Your task to perform on an android device: change text size in settings app Image 0: 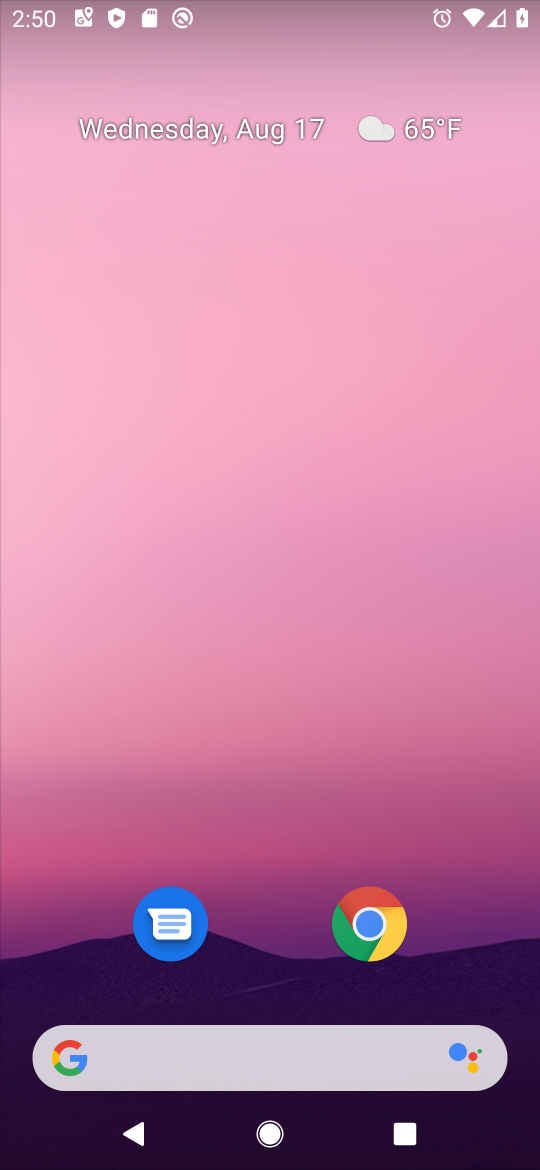
Step 0: drag from (222, 1063) to (180, 189)
Your task to perform on an android device: change text size in settings app Image 1: 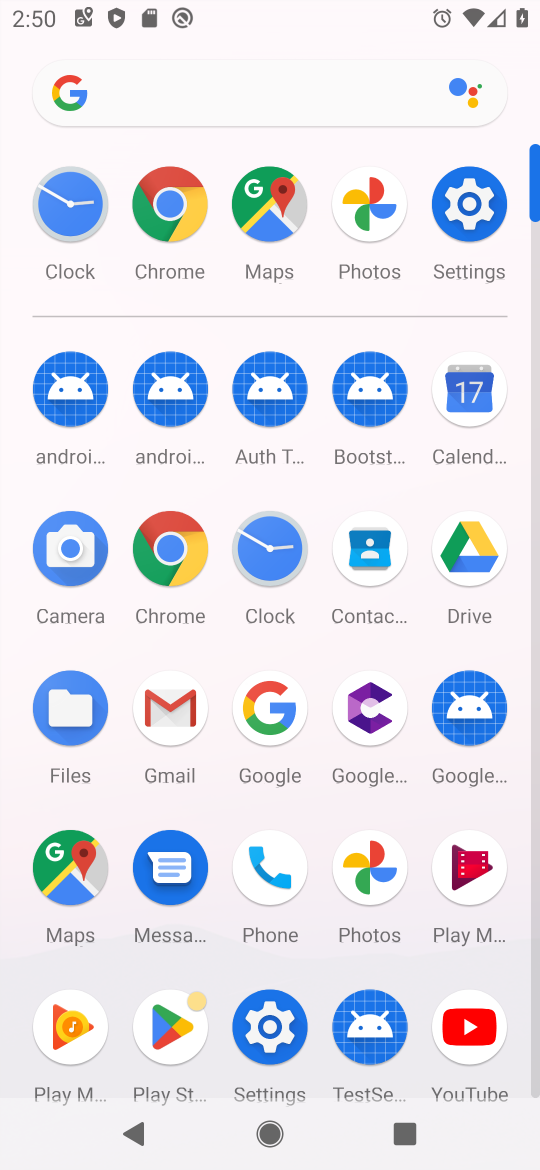
Step 1: click (470, 205)
Your task to perform on an android device: change text size in settings app Image 2: 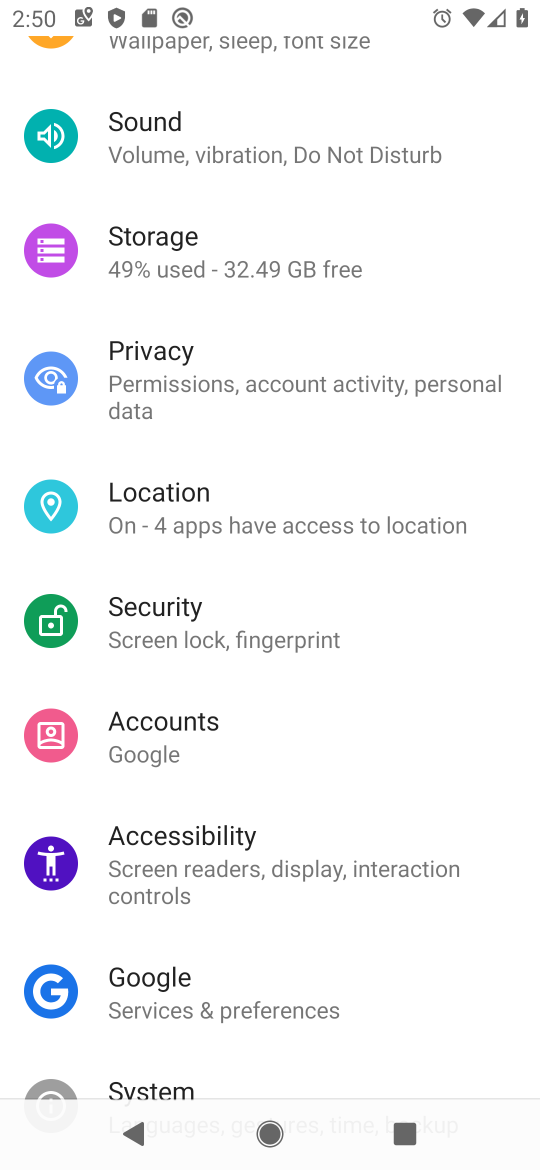
Step 2: click (206, 854)
Your task to perform on an android device: change text size in settings app Image 3: 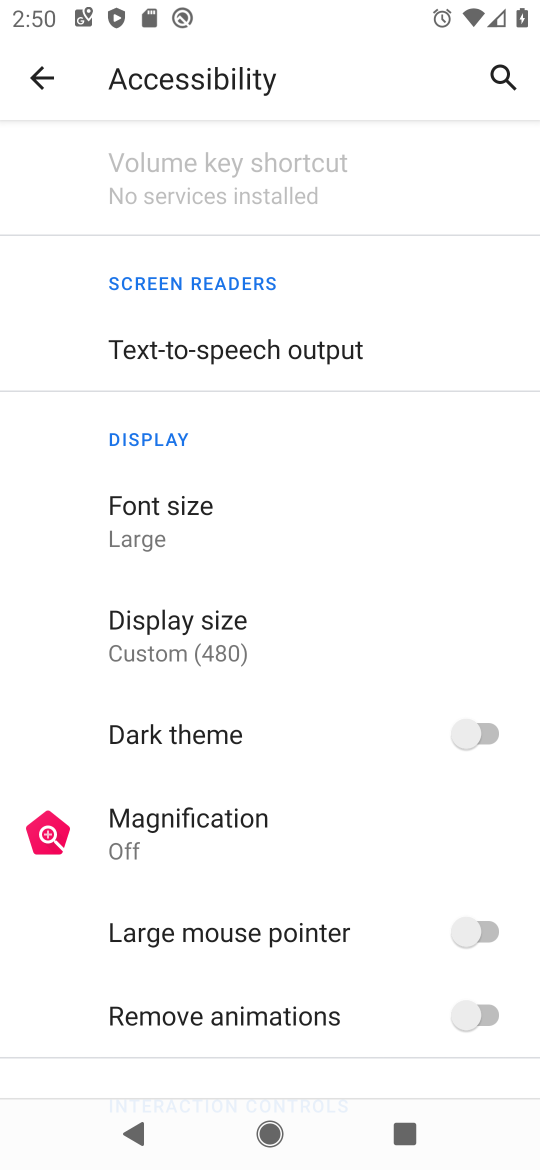
Step 3: click (191, 504)
Your task to perform on an android device: change text size in settings app Image 4: 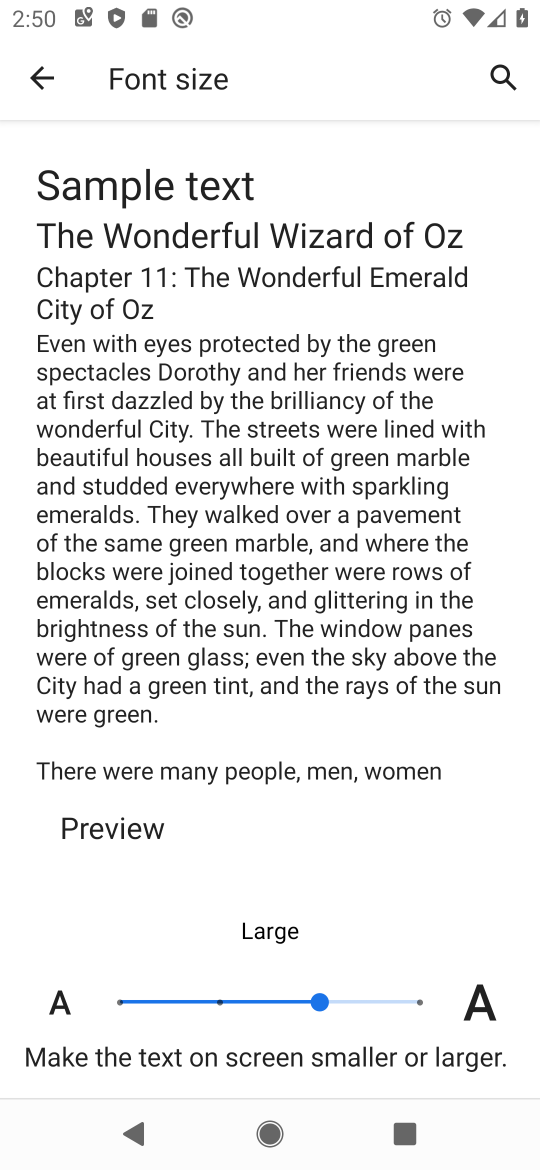
Step 4: click (223, 993)
Your task to perform on an android device: change text size in settings app Image 5: 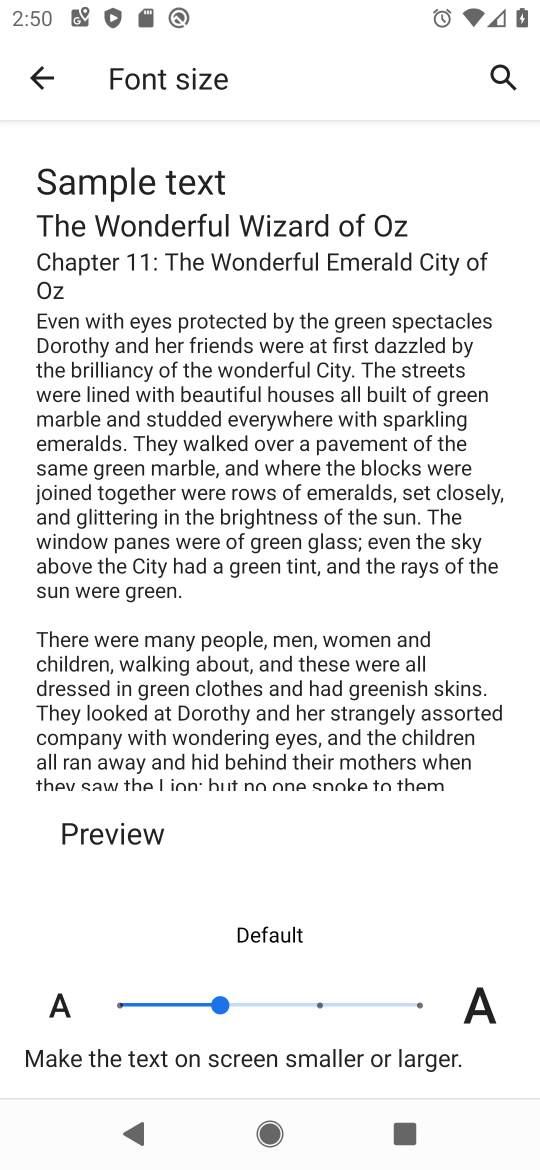
Step 5: task complete